Your task to perform on an android device: move a message to another label in the gmail app Image 0: 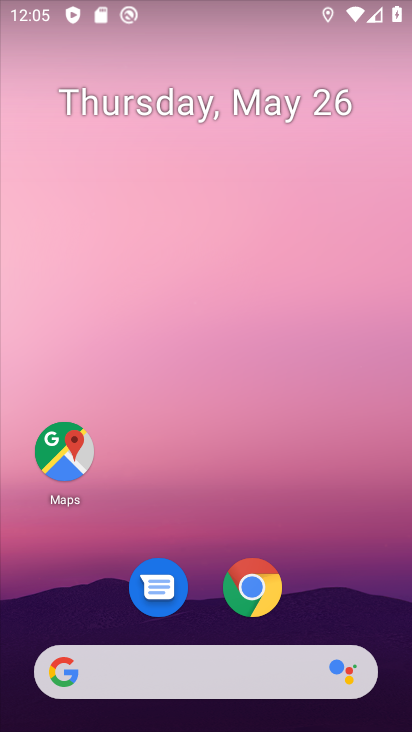
Step 0: click (372, 234)
Your task to perform on an android device: move a message to another label in the gmail app Image 1: 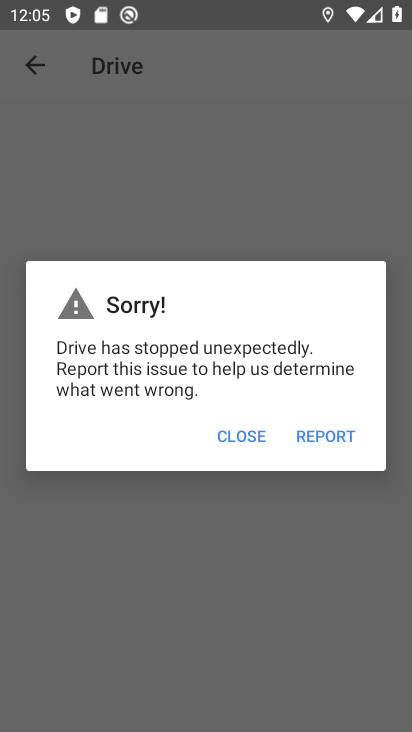
Step 1: press home button
Your task to perform on an android device: move a message to another label in the gmail app Image 2: 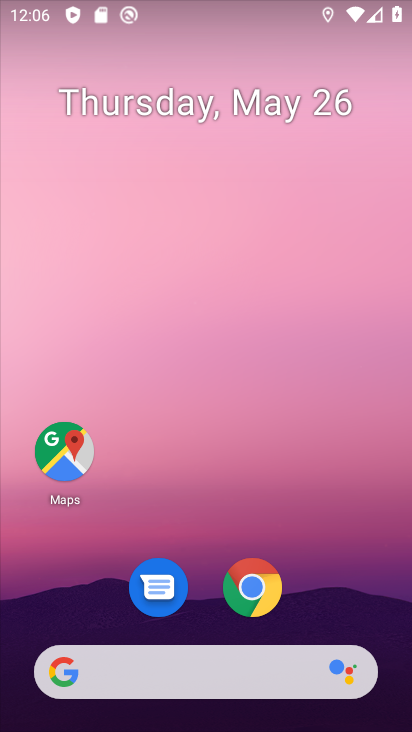
Step 2: drag from (379, 589) to (382, 190)
Your task to perform on an android device: move a message to another label in the gmail app Image 3: 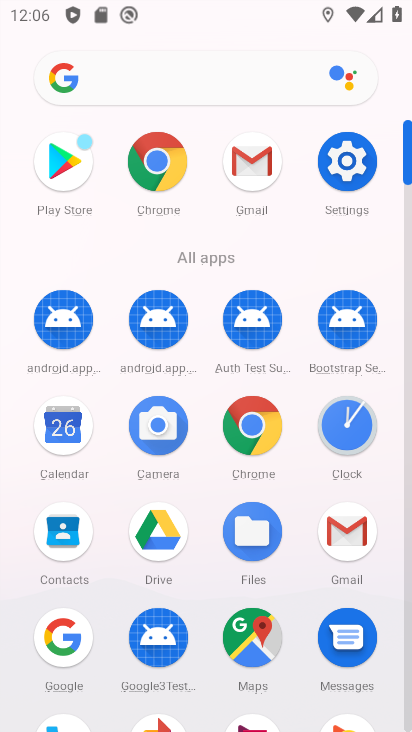
Step 3: click (344, 535)
Your task to perform on an android device: move a message to another label in the gmail app Image 4: 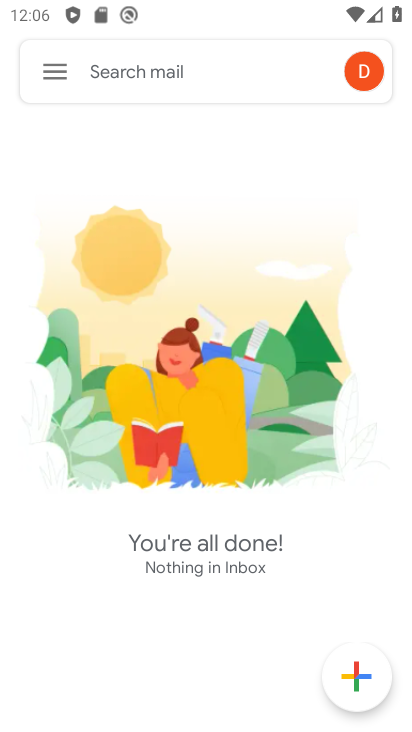
Step 4: task complete